Your task to perform on an android device: open app "Gboard" Image 0: 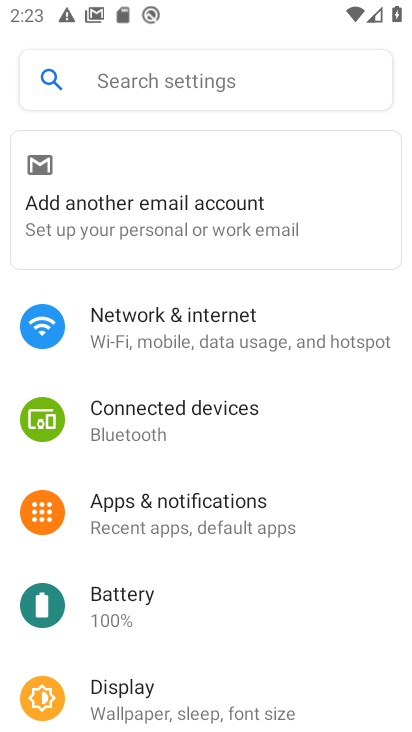
Step 0: press home button
Your task to perform on an android device: open app "Gboard" Image 1: 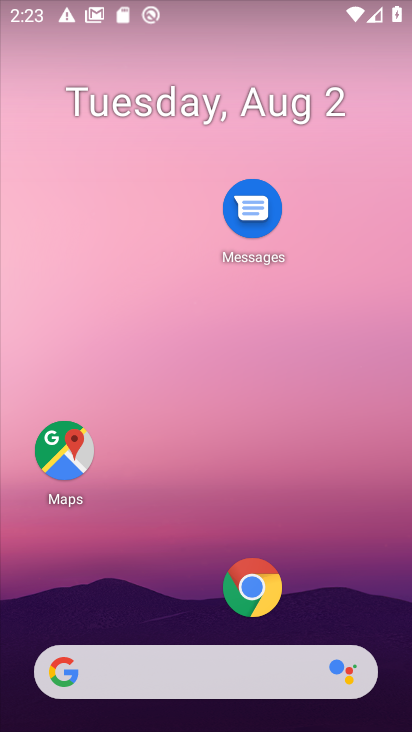
Step 1: drag from (186, 587) to (204, 212)
Your task to perform on an android device: open app "Gboard" Image 2: 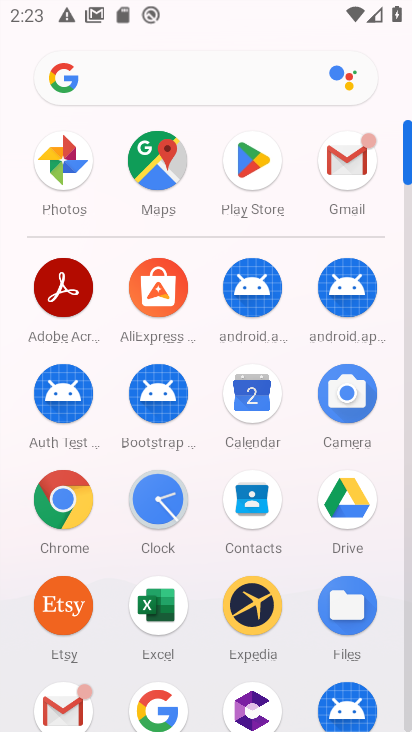
Step 2: click (261, 169)
Your task to perform on an android device: open app "Gboard" Image 3: 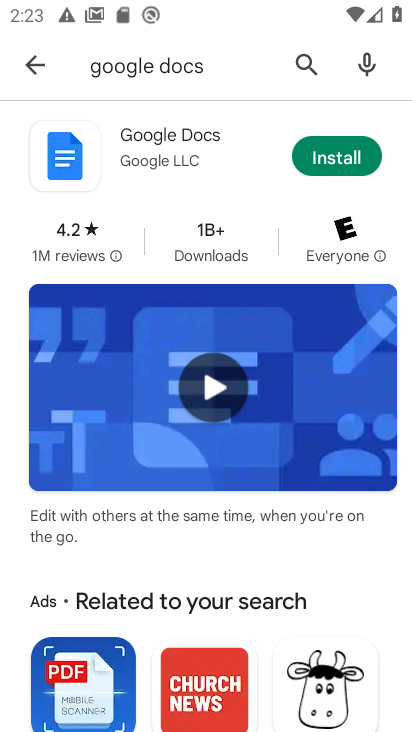
Step 3: click (308, 62)
Your task to perform on an android device: open app "Gboard" Image 4: 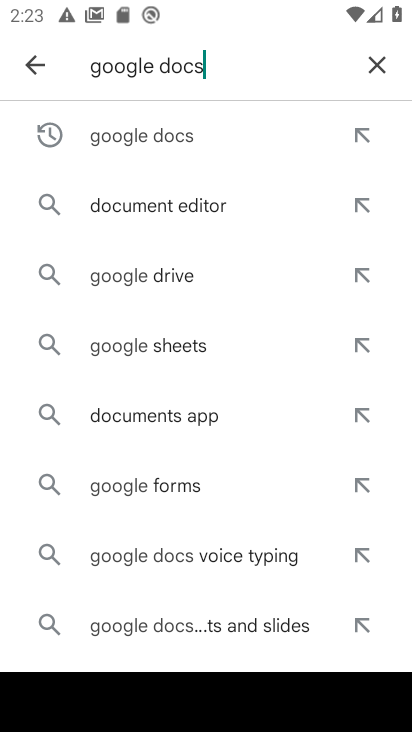
Step 4: click (375, 68)
Your task to perform on an android device: open app "Gboard" Image 5: 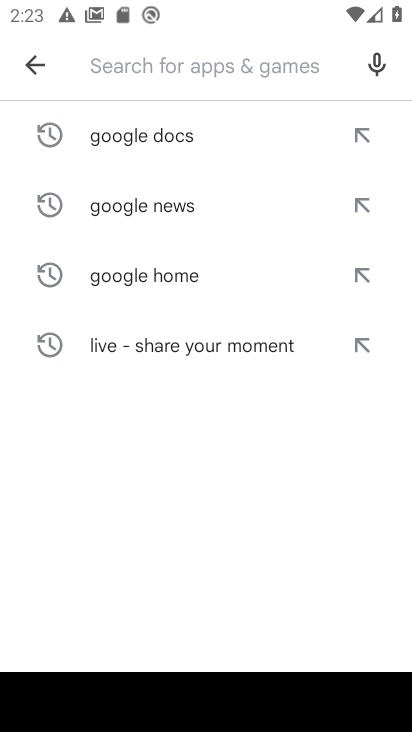
Step 5: type "Gboard"
Your task to perform on an android device: open app "Gboard" Image 6: 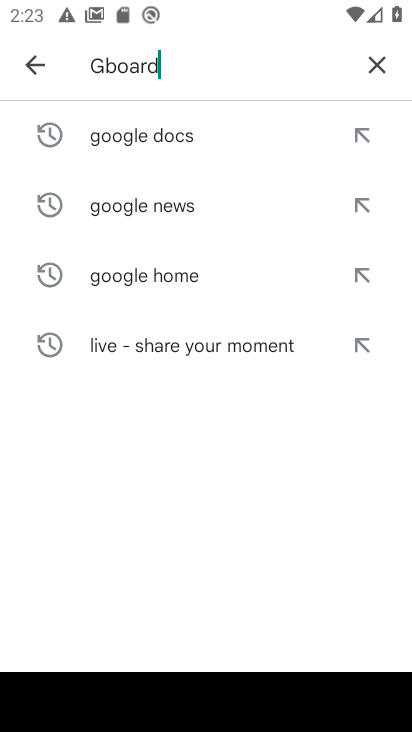
Step 6: type ""
Your task to perform on an android device: open app "Gboard" Image 7: 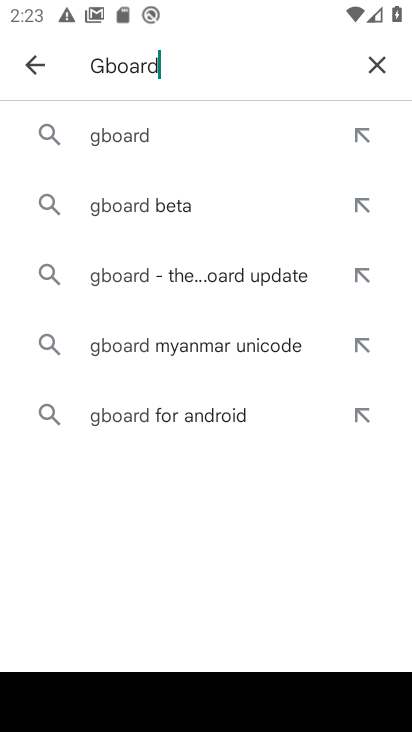
Step 7: click (125, 135)
Your task to perform on an android device: open app "Gboard" Image 8: 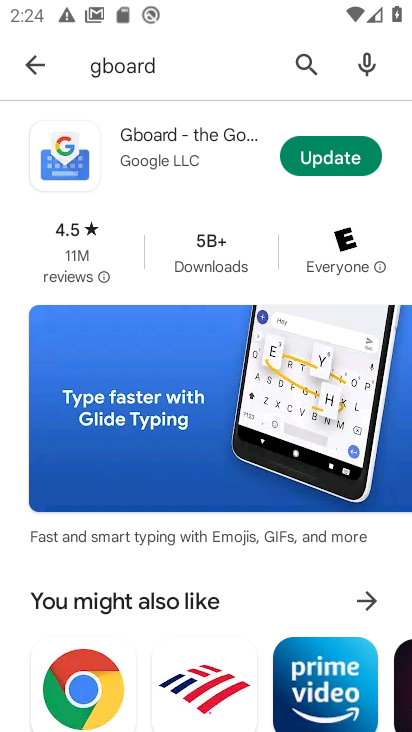
Step 8: click (202, 144)
Your task to perform on an android device: open app "Gboard" Image 9: 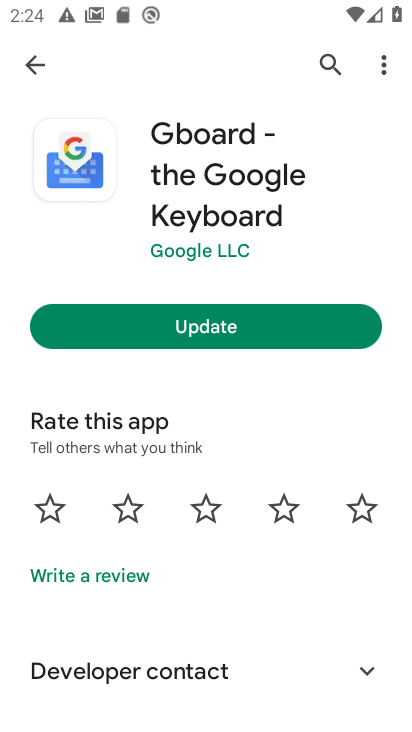
Step 9: click (234, 345)
Your task to perform on an android device: open app "Gboard" Image 10: 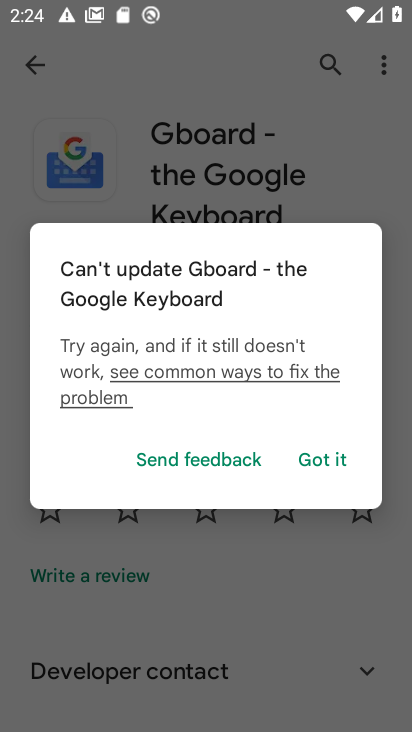
Step 10: click (319, 452)
Your task to perform on an android device: open app "Gboard" Image 11: 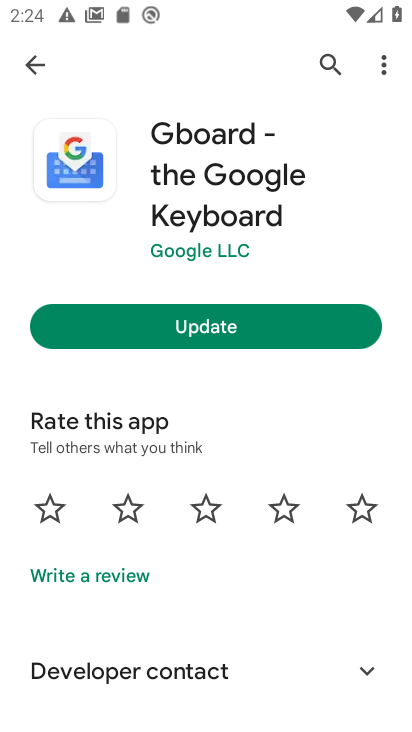
Step 11: click (281, 323)
Your task to perform on an android device: open app "Gboard" Image 12: 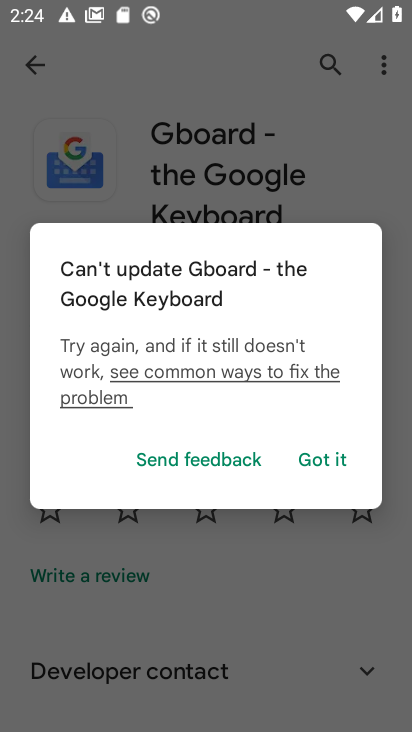
Step 12: click (320, 479)
Your task to perform on an android device: open app "Gboard" Image 13: 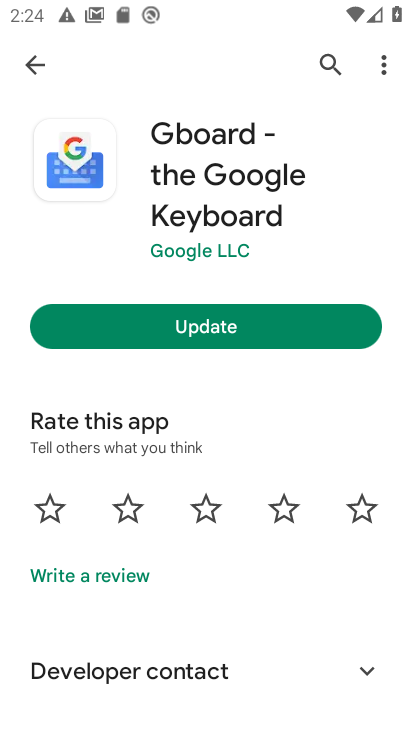
Step 13: task complete